Your task to perform on an android device: check storage Image 0: 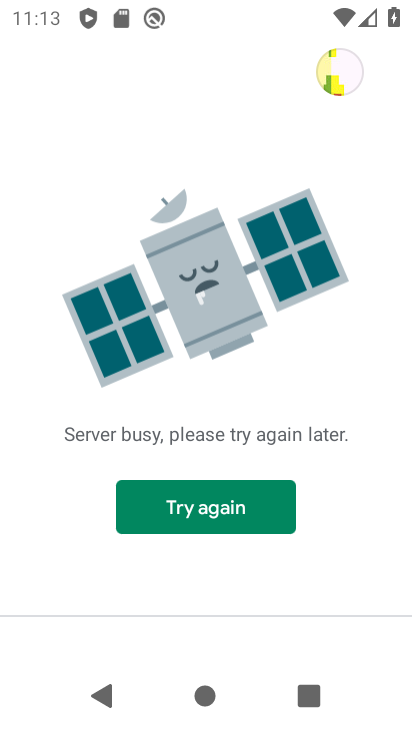
Step 0: press home button
Your task to perform on an android device: check storage Image 1: 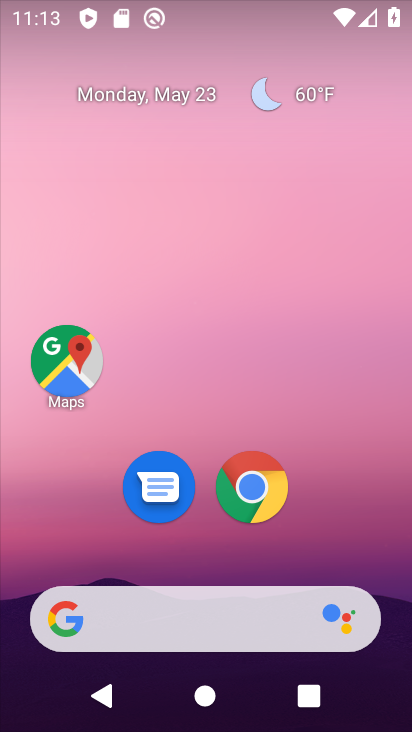
Step 1: drag from (72, 583) to (148, 137)
Your task to perform on an android device: check storage Image 2: 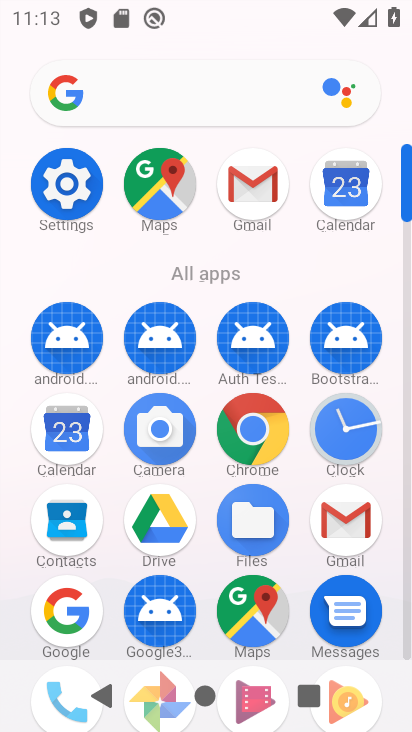
Step 2: drag from (129, 592) to (176, 326)
Your task to perform on an android device: check storage Image 3: 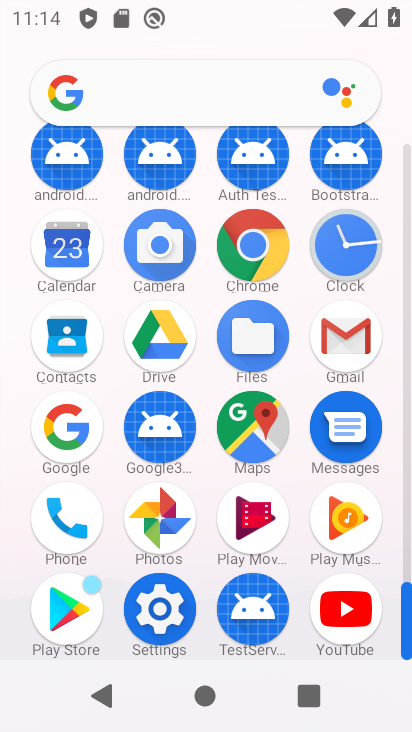
Step 3: click (159, 633)
Your task to perform on an android device: check storage Image 4: 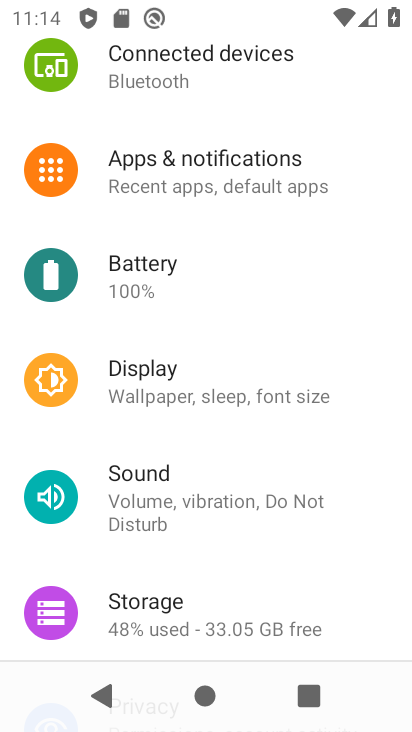
Step 4: click (175, 609)
Your task to perform on an android device: check storage Image 5: 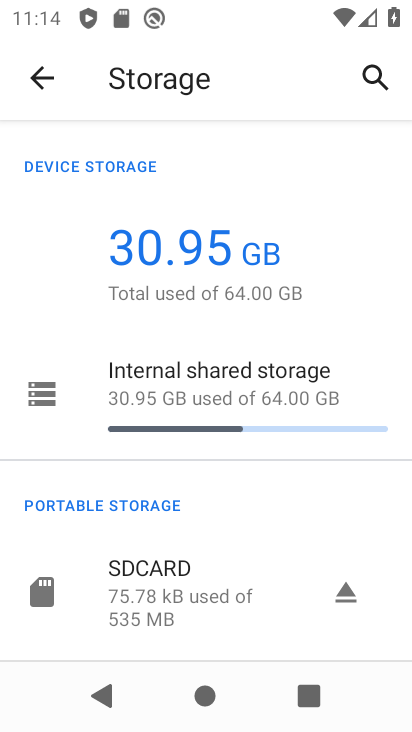
Step 5: task complete